Your task to perform on an android device: Open Yahoo.com Image 0: 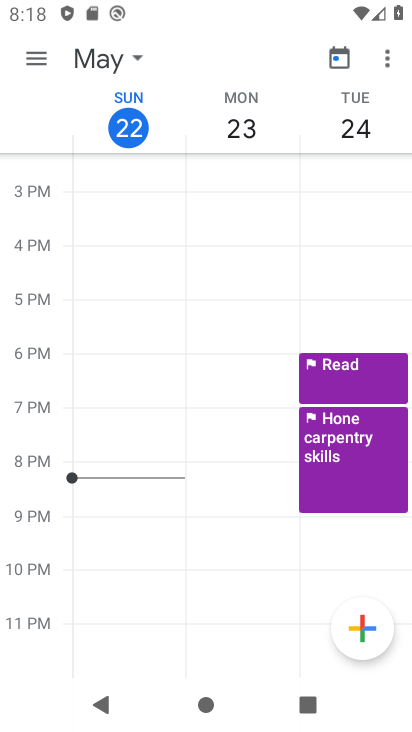
Step 0: press home button
Your task to perform on an android device: Open Yahoo.com Image 1: 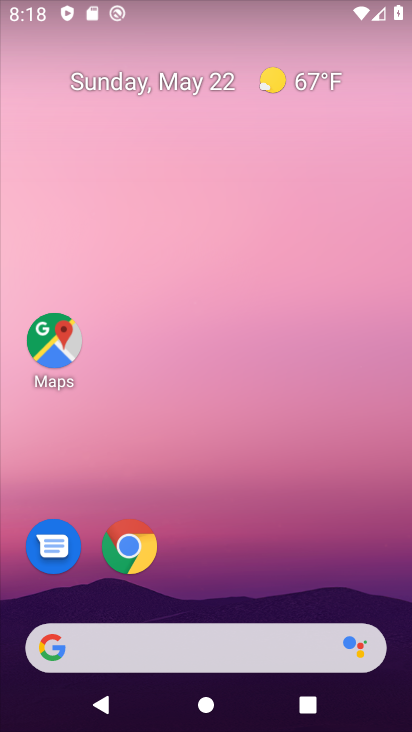
Step 1: click (133, 541)
Your task to perform on an android device: Open Yahoo.com Image 2: 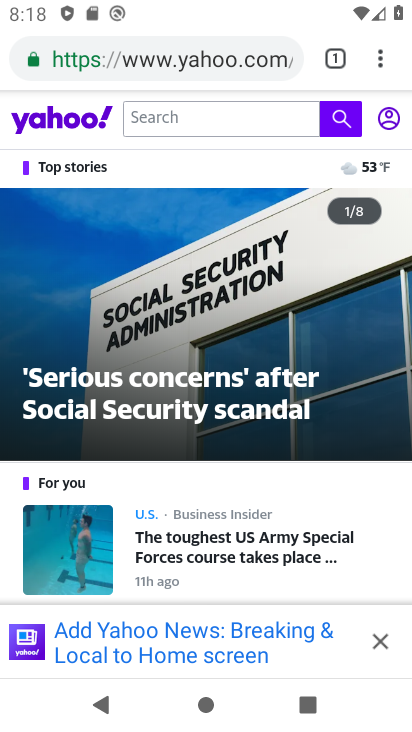
Step 2: task complete